Your task to perform on an android device: all mails in gmail Image 0: 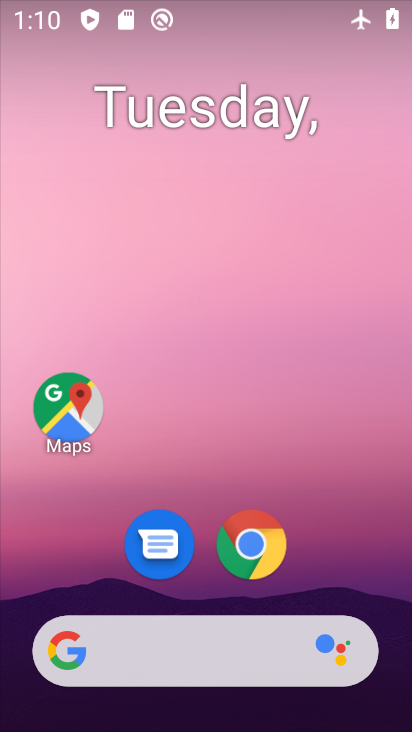
Step 0: drag from (393, 611) to (294, 83)
Your task to perform on an android device: all mails in gmail Image 1: 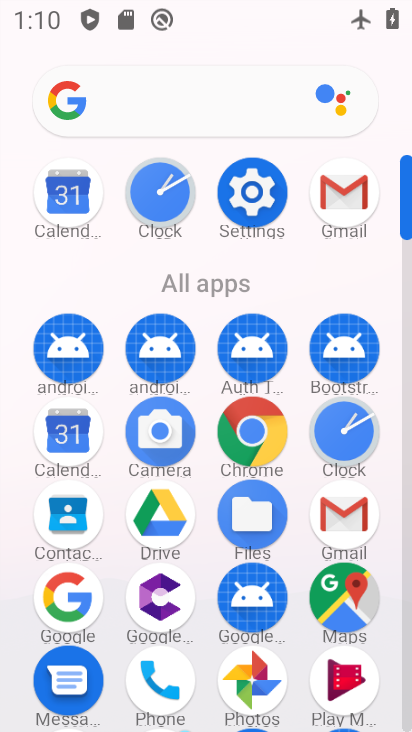
Step 1: click (406, 710)
Your task to perform on an android device: all mails in gmail Image 2: 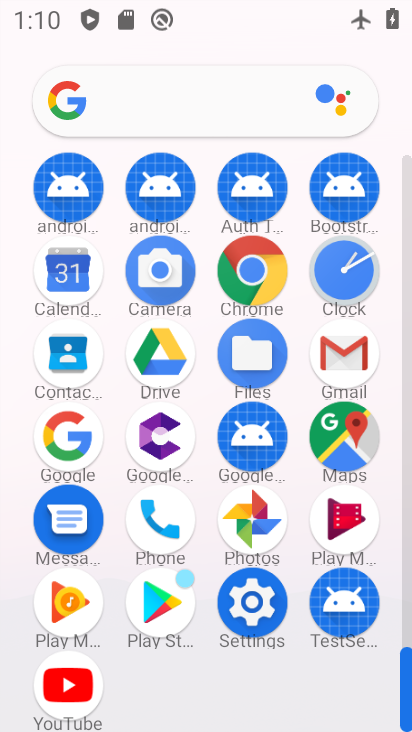
Step 2: click (342, 351)
Your task to perform on an android device: all mails in gmail Image 3: 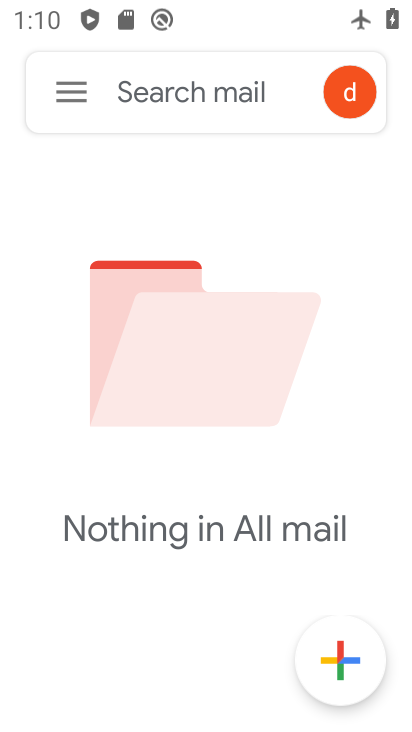
Step 3: click (71, 96)
Your task to perform on an android device: all mails in gmail Image 4: 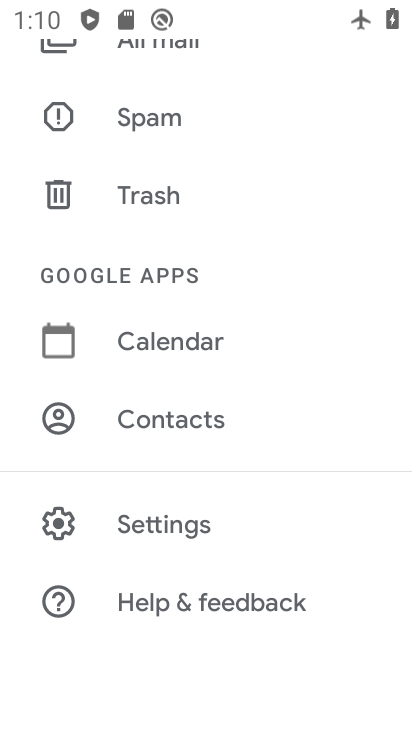
Step 4: drag from (152, 148) to (224, 454)
Your task to perform on an android device: all mails in gmail Image 5: 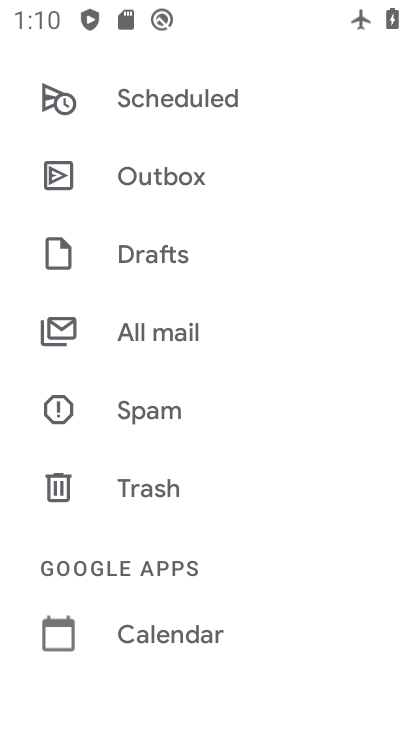
Step 5: click (141, 328)
Your task to perform on an android device: all mails in gmail Image 6: 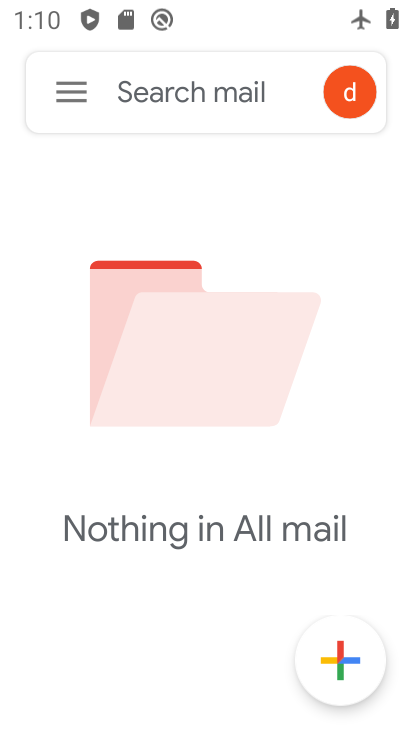
Step 6: task complete